Your task to perform on an android device: Open Google Chrome and click the shortcut for Amazon.com Image 0: 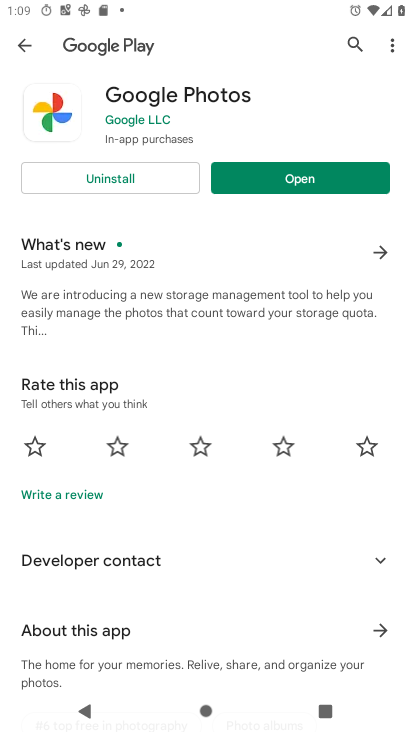
Step 0: press home button
Your task to perform on an android device: Open Google Chrome and click the shortcut for Amazon.com Image 1: 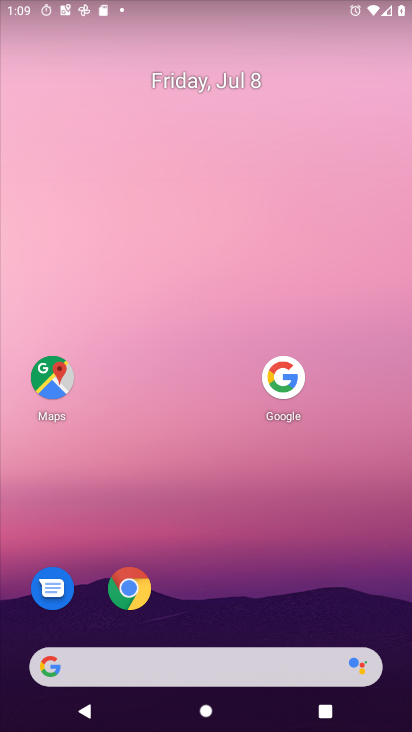
Step 1: click (129, 592)
Your task to perform on an android device: Open Google Chrome and click the shortcut for Amazon.com Image 2: 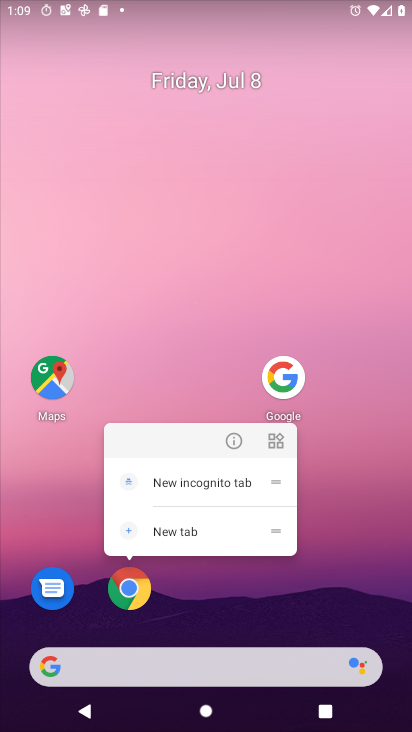
Step 2: click (116, 587)
Your task to perform on an android device: Open Google Chrome and click the shortcut for Amazon.com Image 3: 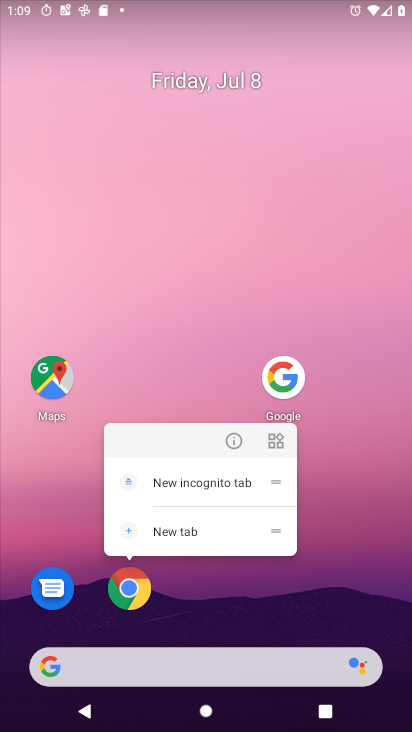
Step 3: click (126, 586)
Your task to perform on an android device: Open Google Chrome and click the shortcut for Amazon.com Image 4: 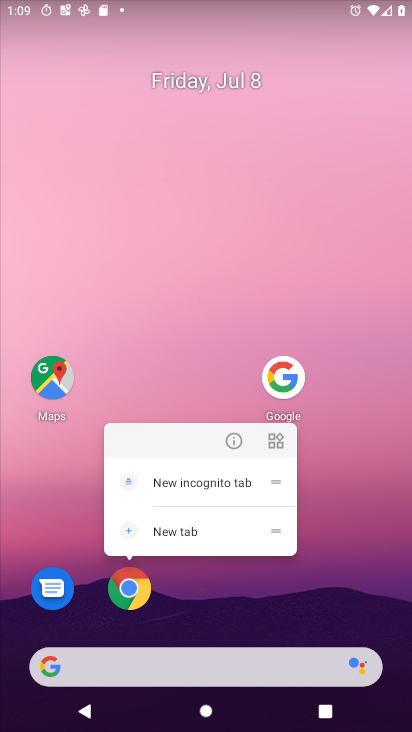
Step 4: click (128, 587)
Your task to perform on an android device: Open Google Chrome and click the shortcut for Amazon.com Image 5: 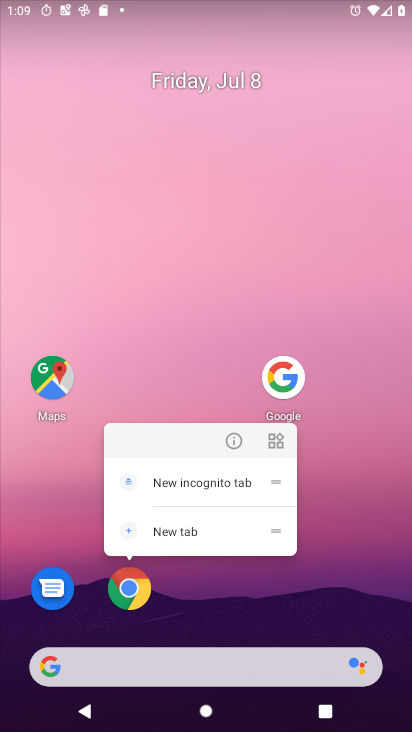
Step 5: click (128, 586)
Your task to perform on an android device: Open Google Chrome and click the shortcut for Amazon.com Image 6: 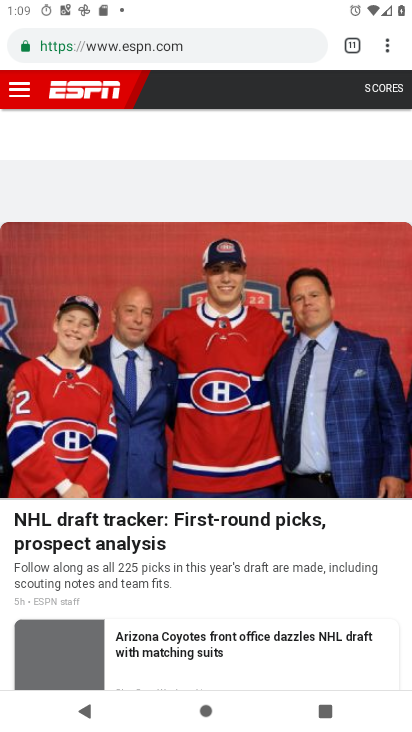
Step 6: drag from (389, 45) to (302, 91)
Your task to perform on an android device: Open Google Chrome and click the shortcut for Amazon.com Image 7: 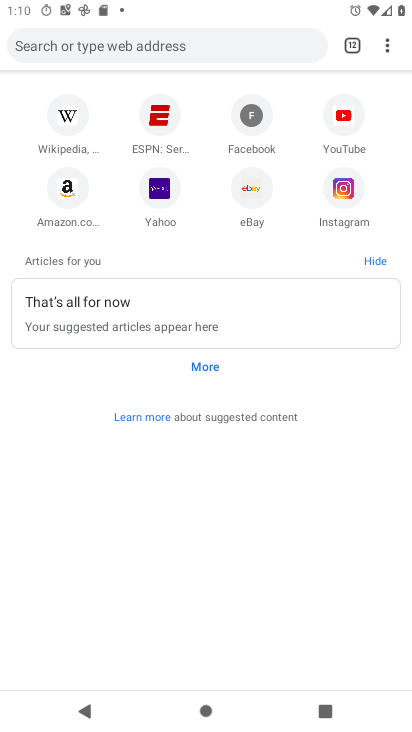
Step 7: click (68, 192)
Your task to perform on an android device: Open Google Chrome and click the shortcut for Amazon.com Image 8: 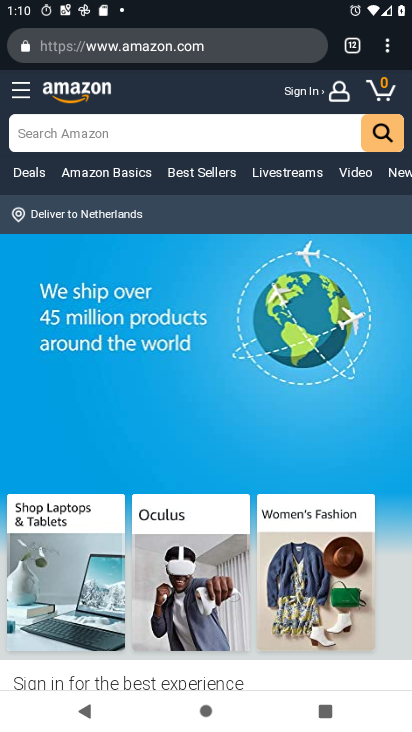
Step 8: task complete